Your task to perform on an android device: check android version Image 0: 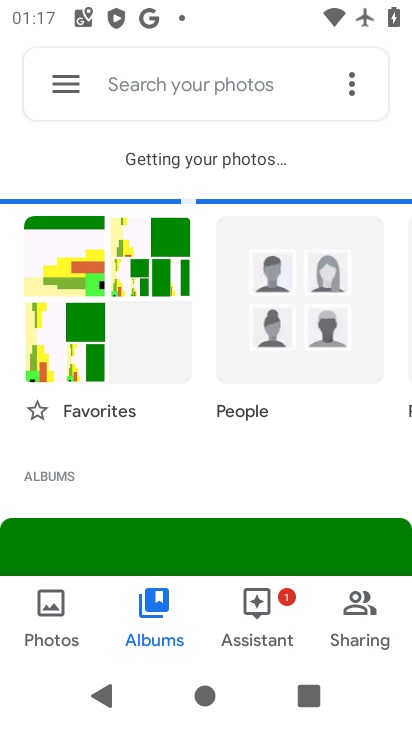
Step 0: press home button
Your task to perform on an android device: check android version Image 1: 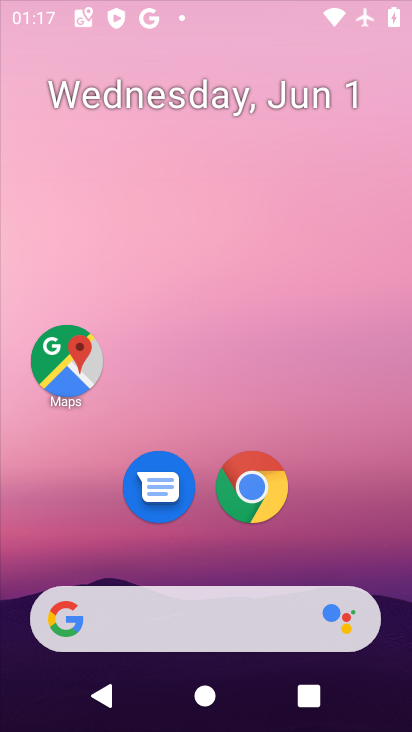
Step 1: drag from (333, 549) to (309, 296)
Your task to perform on an android device: check android version Image 2: 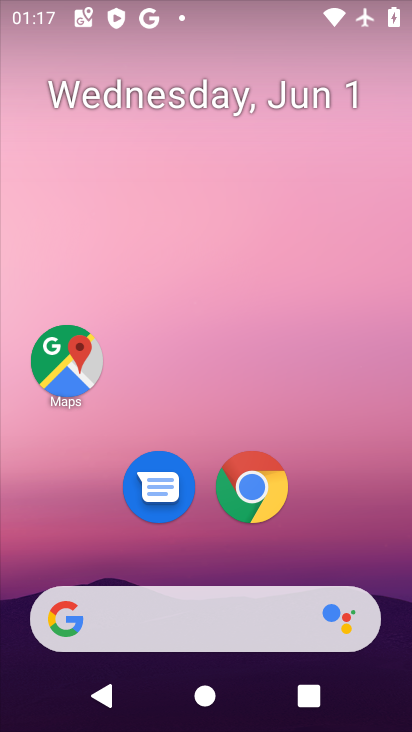
Step 2: drag from (297, 527) to (262, 183)
Your task to perform on an android device: check android version Image 3: 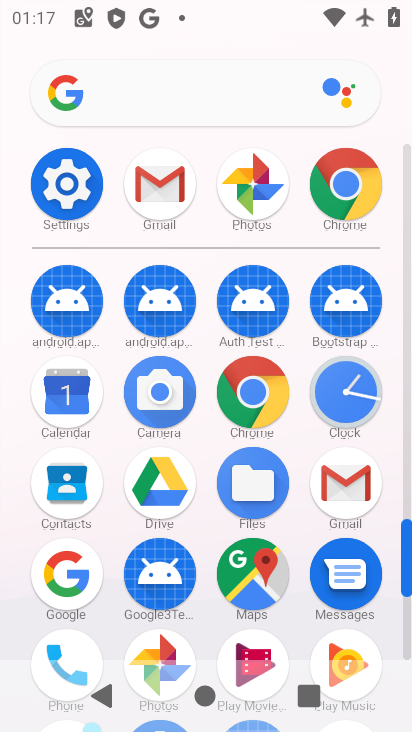
Step 3: click (64, 190)
Your task to perform on an android device: check android version Image 4: 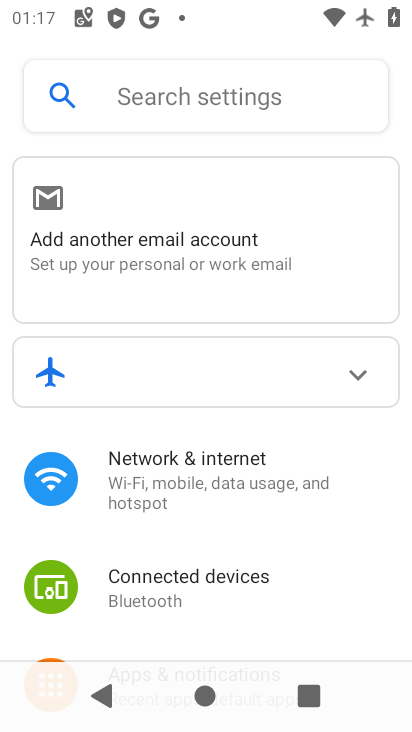
Step 4: drag from (265, 560) to (328, 181)
Your task to perform on an android device: check android version Image 5: 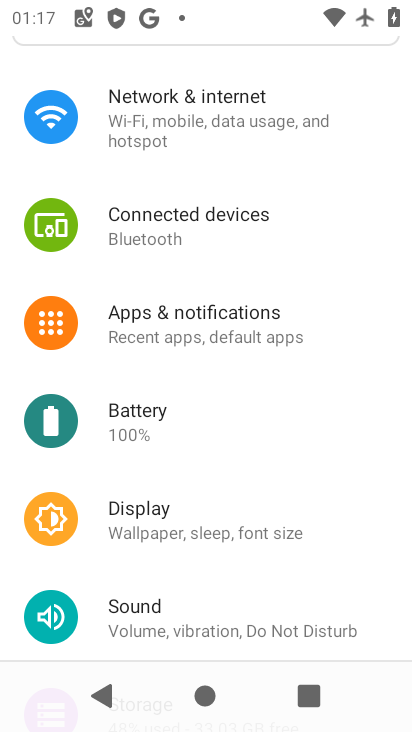
Step 5: drag from (221, 605) to (294, 221)
Your task to perform on an android device: check android version Image 6: 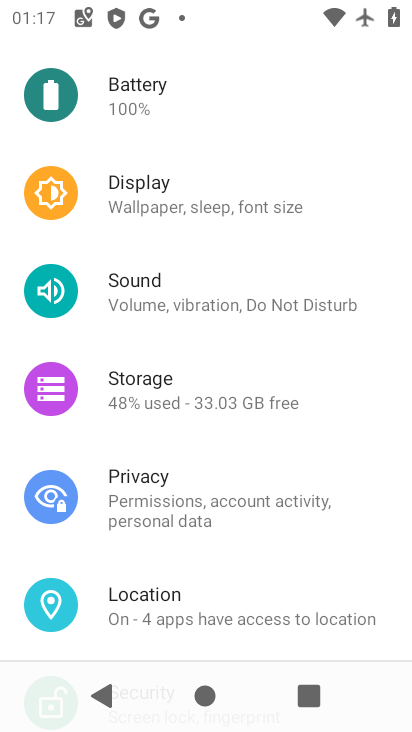
Step 6: drag from (194, 612) to (270, 201)
Your task to perform on an android device: check android version Image 7: 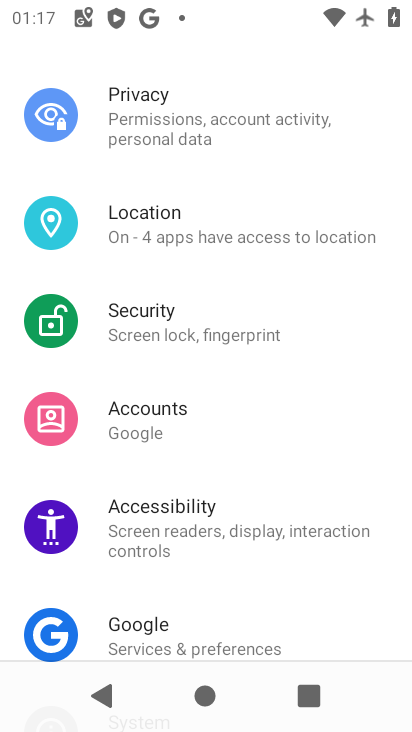
Step 7: drag from (191, 602) to (253, 245)
Your task to perform on an android device: check android version Image 8: 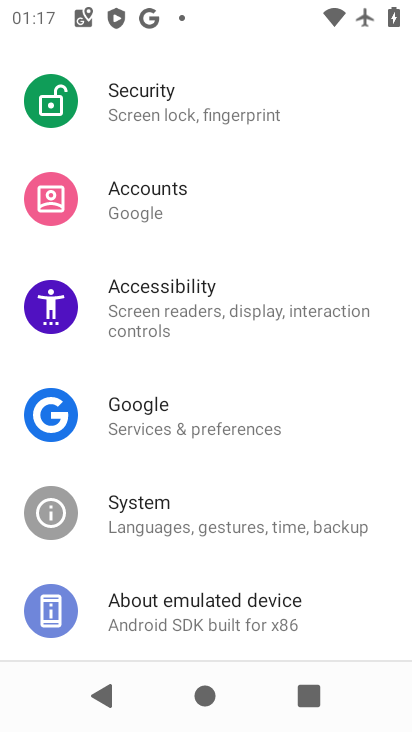
Step 8: click (143, 624)
Your task to perform on an android device: check android version Image 9: 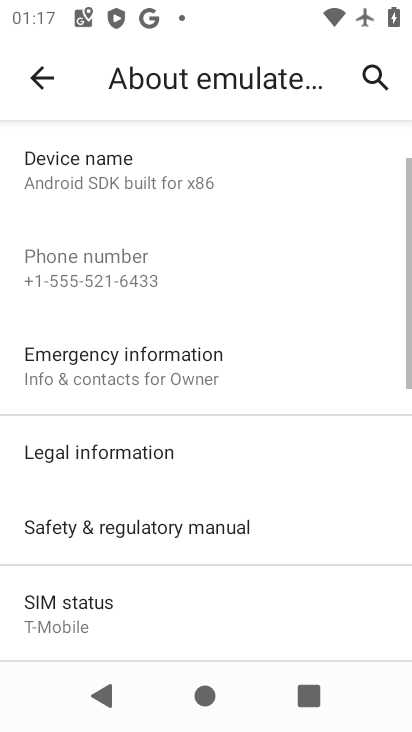
Step 9: task complete